Your task to perform on an android device: Open Reddit.com Image 0: 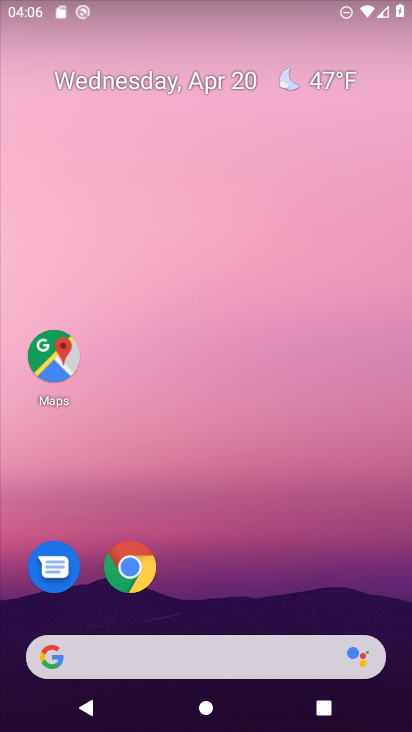
Step 0: click (158, 652)
Your task to perform on an android device: Open Reddit.com Image 1: 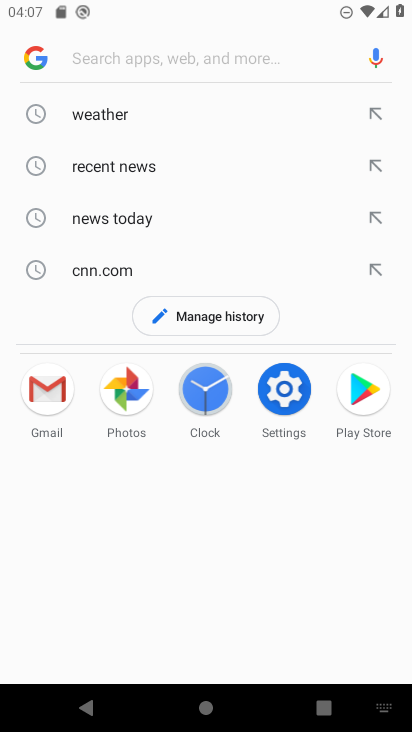
Step 1: type "reddit.com"
Your task to perform on an android device: Open Reddit.com Image 2: 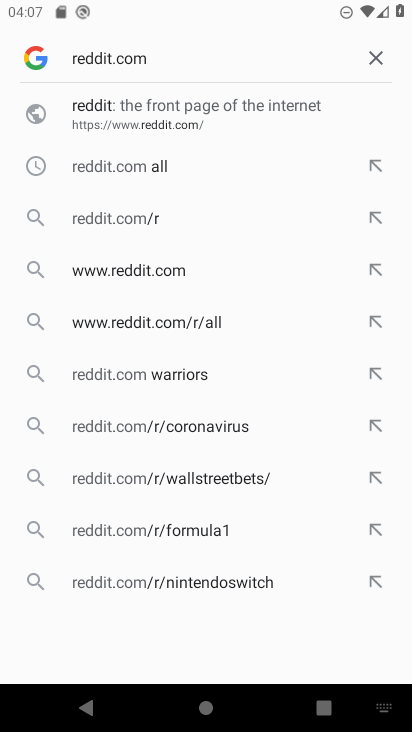
Step 2: click (135, 129)
Your task to perform on an android device: Open Reddit.com Image 3: 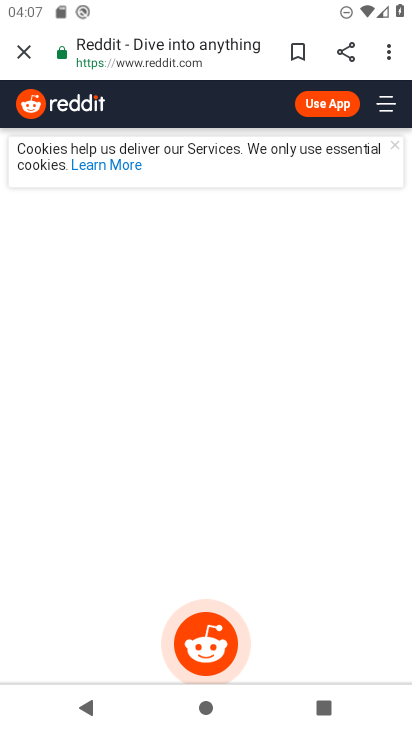
Step 3: task complete